Your task to perform on an android device: Open Amazon Image 0: 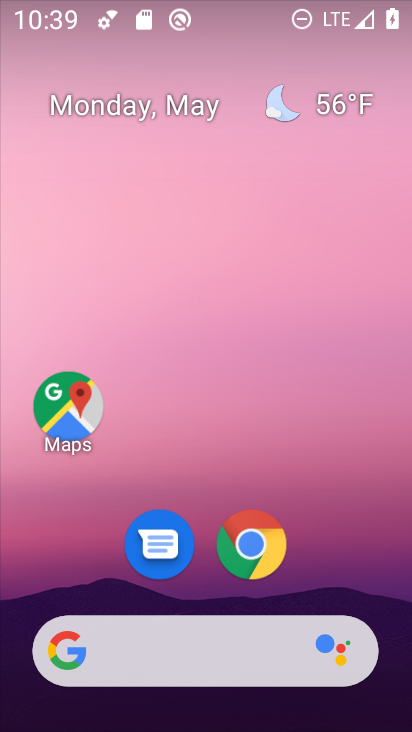
Step 0: click (243, 546)
Your task to perform on an android device: Open Amazon Image 1: 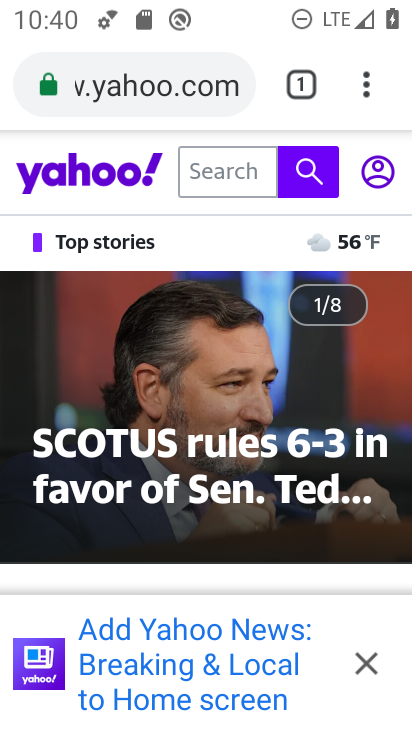
Step 1: click (230, 98)
Your task to perform on an android device: Open Amazon Image 2: 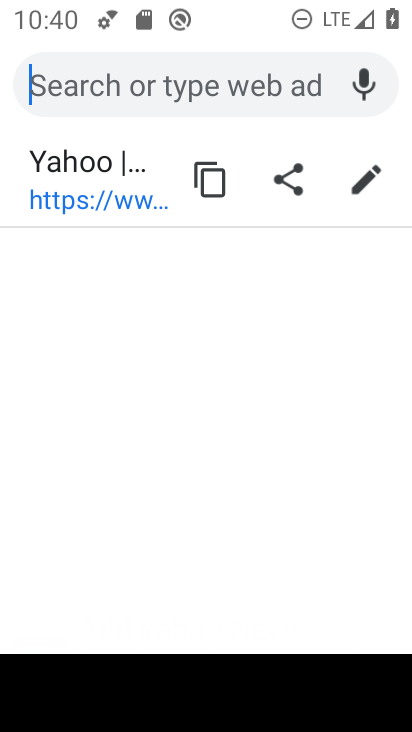
Step 2: type "Amazon"
Your task to perform on an android device: Open Amazon Image 3: 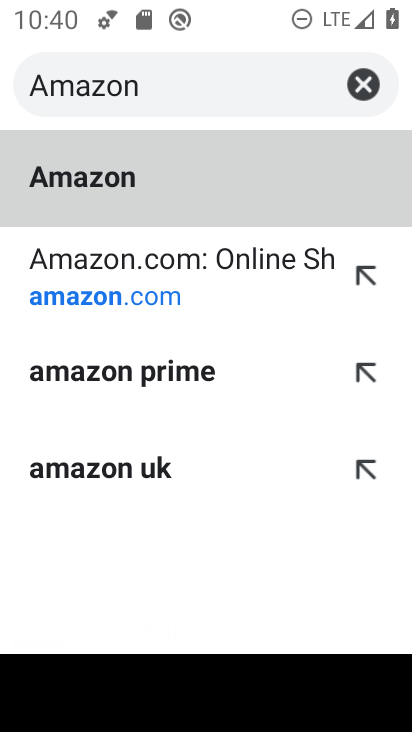
Step 3: click (223, 191)
Your task to perform on an android device: Open Amazon Image 4: 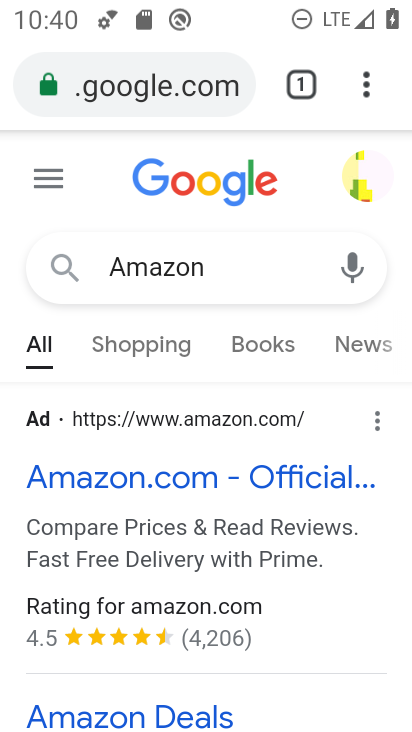
Step 4: click (205, 481)
Your task to perform on an android device: Open Amazon Image 5: 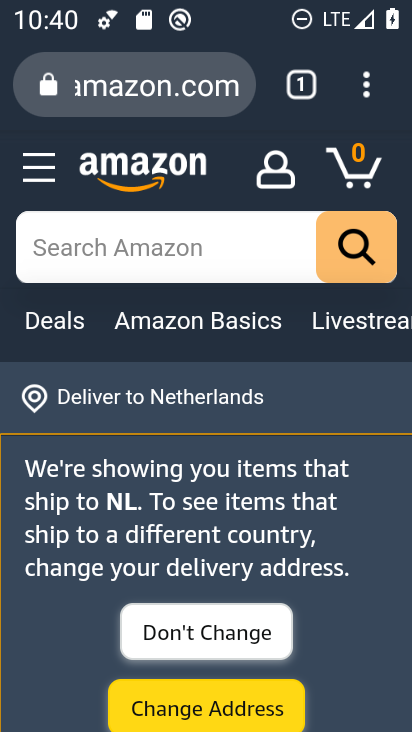
Step 5: task complete